Your task to perform on an android device: Add "asus rog" to the cart on target, then select checkout. Image 0: 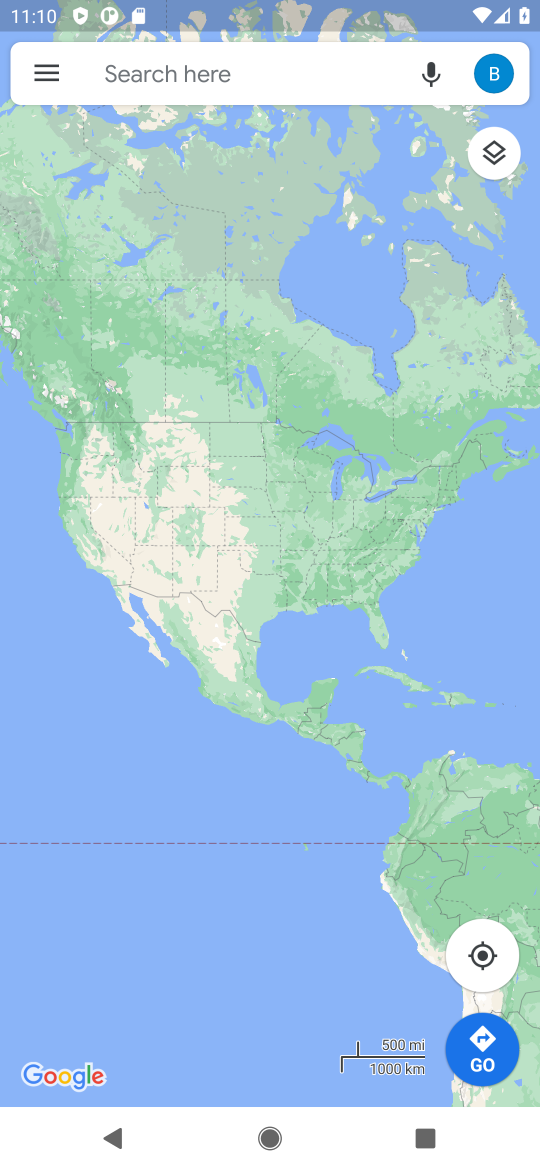
Step 0: press home button
Your task to perform on an android device: Add "asus rog" to the cart on target, then select checkout. Image 1: 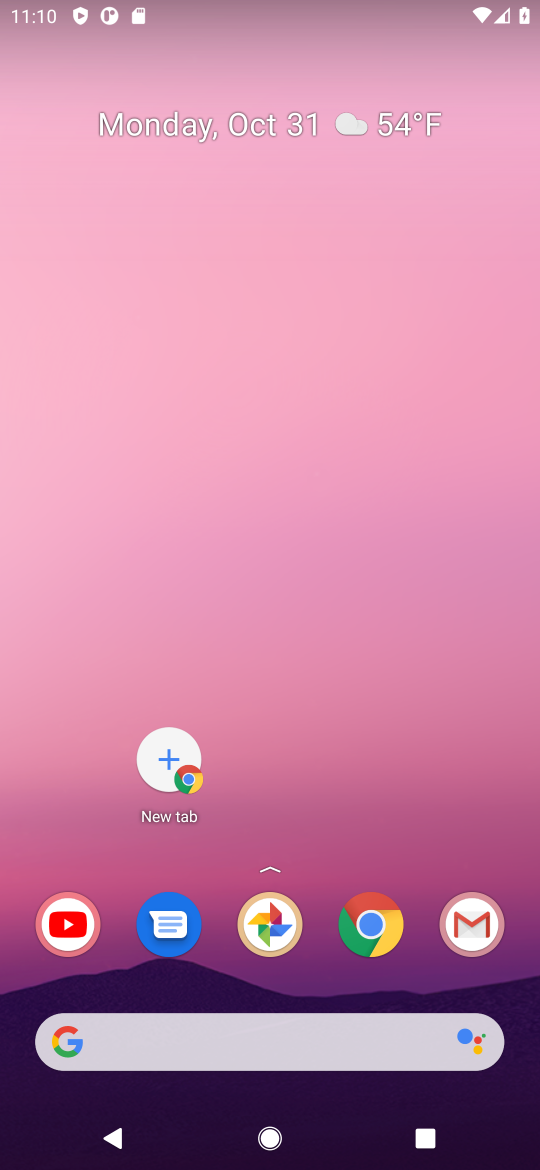
Step 1: click (165, 757)
Your task to perform on an android device: Add "asus rog" to the cart on target, then select checkout. Image 2: 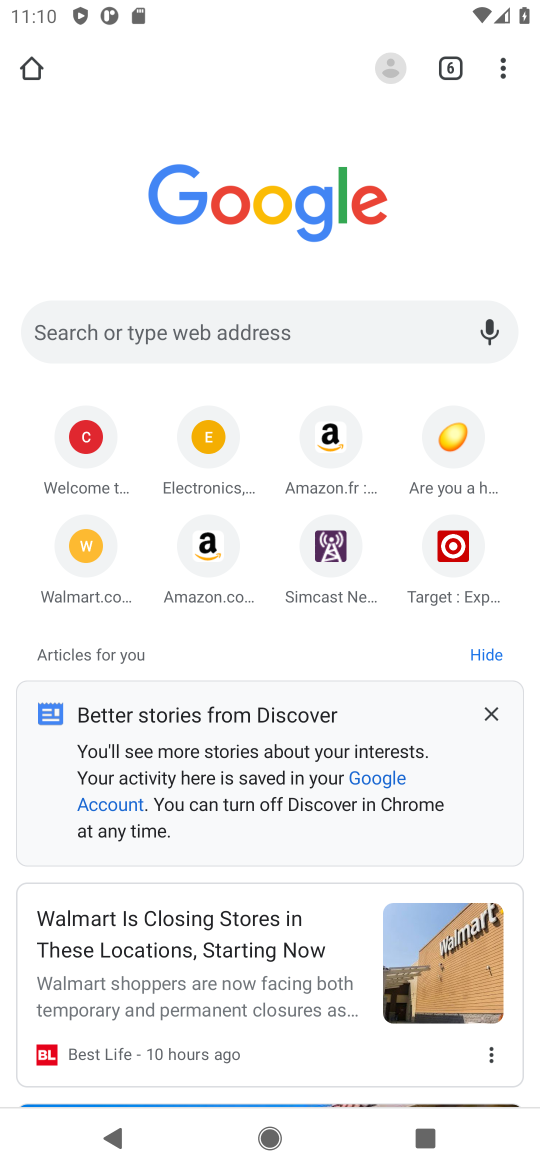
Step 2: click (241, 325)
Your task to perform on an android device: Add "asus rog" to the cart on target, then select checkout. Image 3: 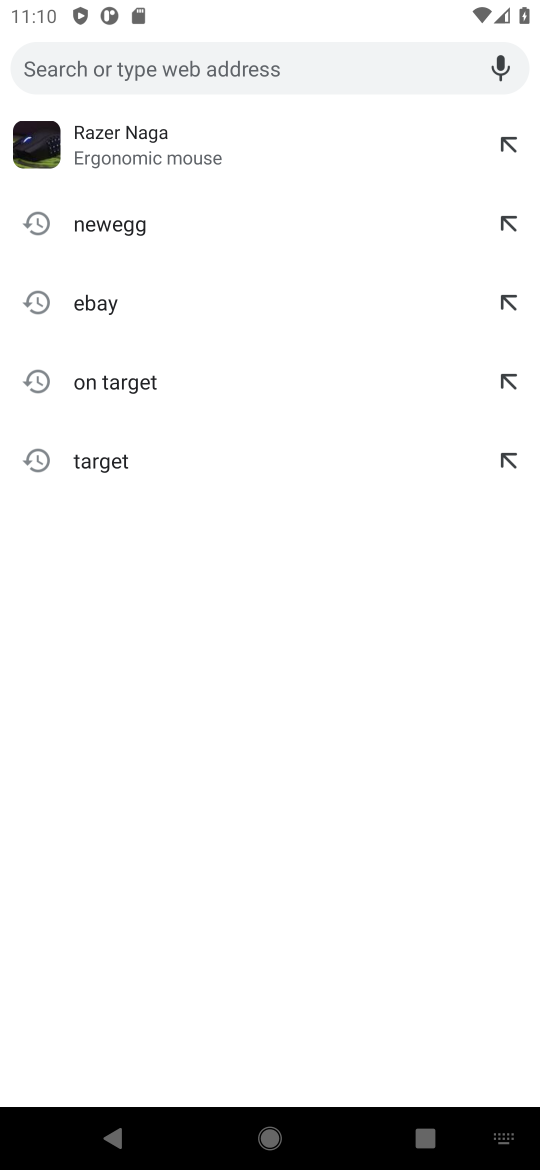
Step 3: type "target.com"
Your task to perform on an android device: Add "asus rog" to the cart on target, then select checkout. Image 4: 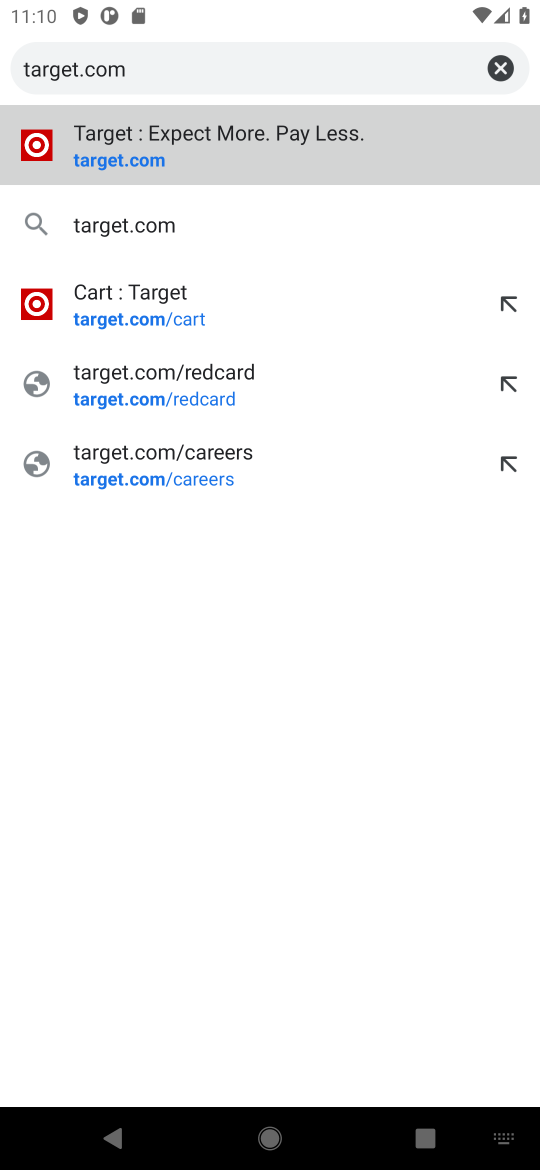
Step 4: type ""
Your task to perform on an android device: Add "asus rog" to the cart on target, then select checkout. Image 5: 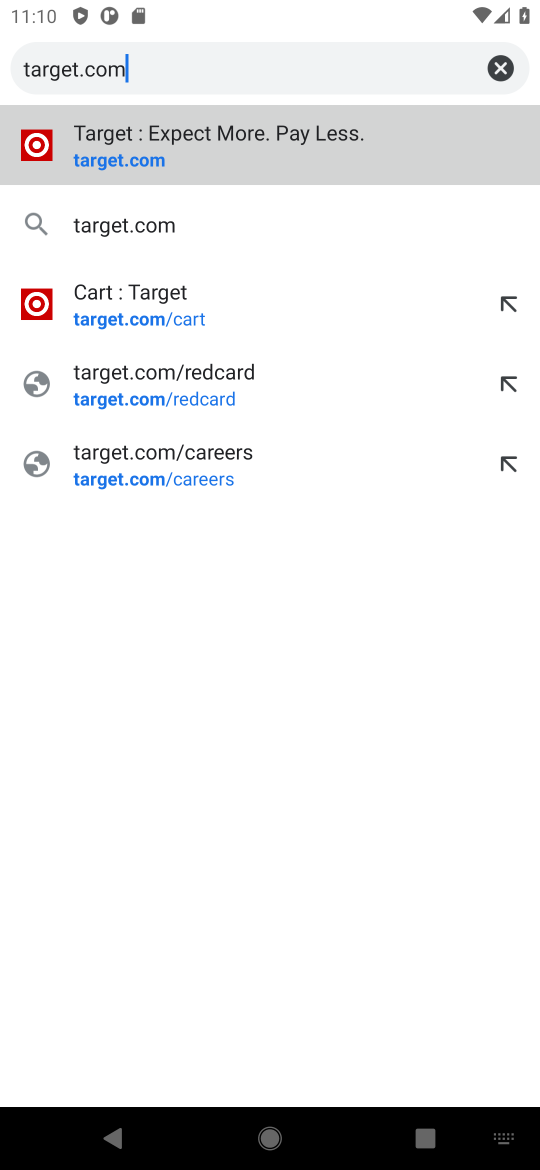
Step 5: click (174, 167)
Your task to perform on an android device: Add "asus rog" to the cart on target, then select checkout. Image 6: 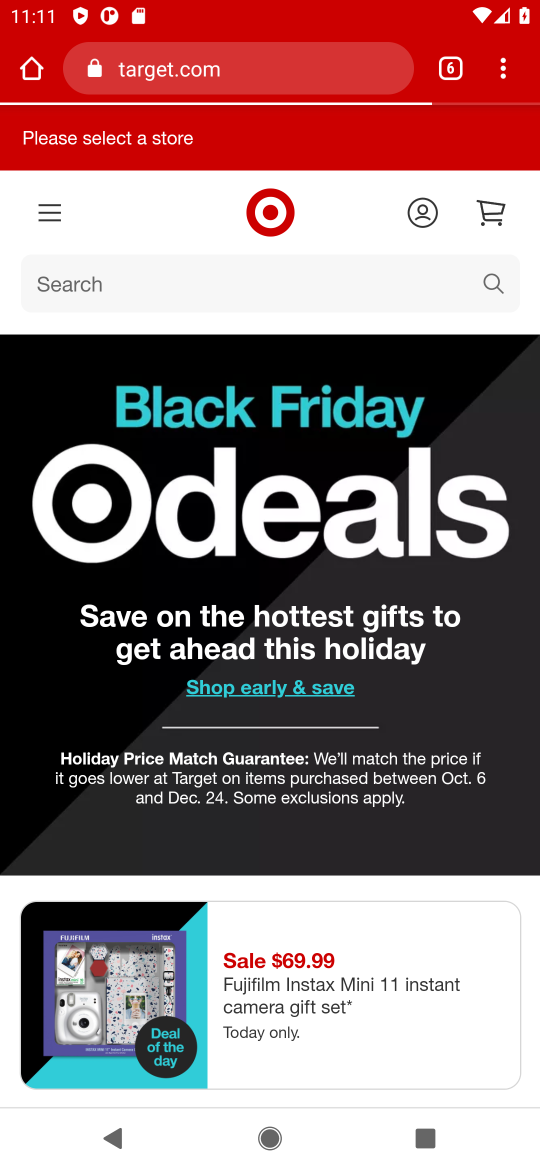
Step 6: click (107, 282)
Your task to perform on an android device: Add "asus rog" to the cart on target, then select checkout. Image 7: 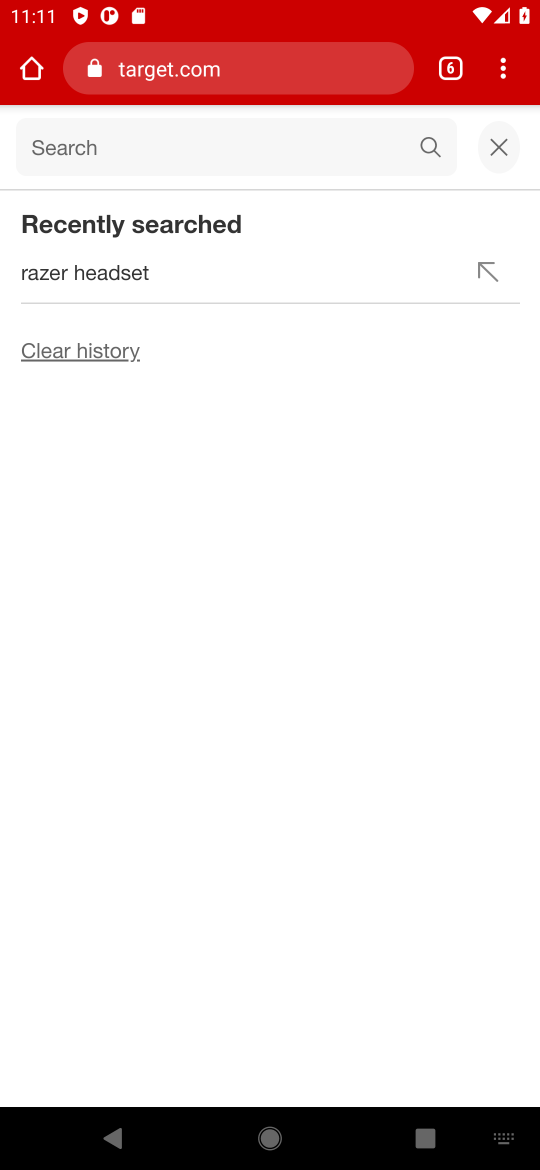
Step 7: type "asus rog"
Your task to perform on an android device: Add "asus rog" to the cart on target, then select checkout. Image 8: 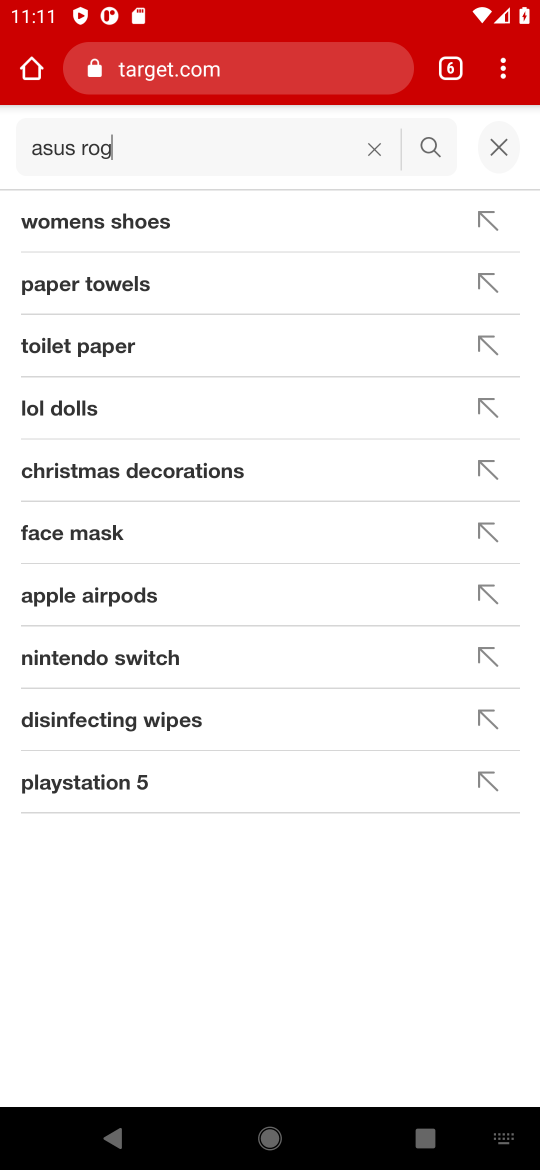
Step 8: type ""
Your task to perform on an android device: Add "asus rog" to the cart on target, then select checkout. Image 9: 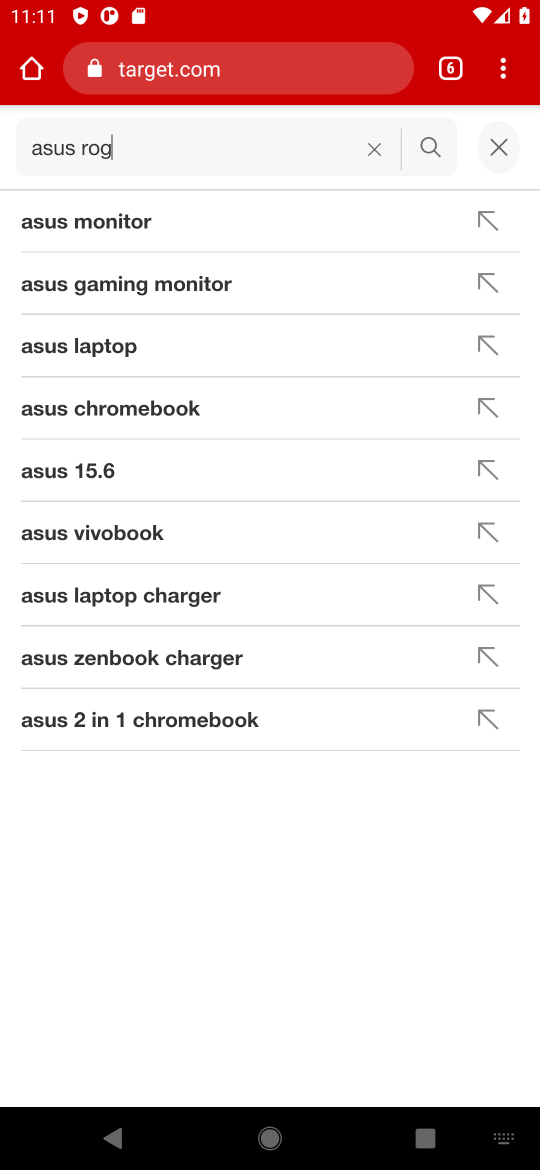
Step 9: click (163, 231)
Your task to perform on an android device: Add "asus rog" to the cart on target, then select checkout. Image 10: 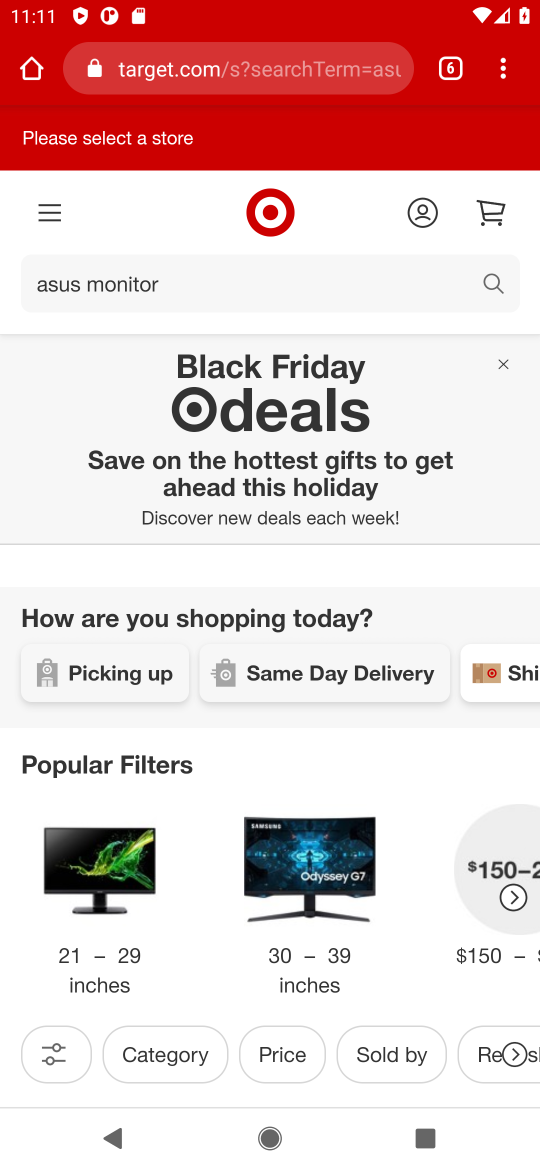
Step 10: drag from (365, 868) to (412, 518)
Your task to perform on an android device: Add "asus rog" to the cart on target, then select checkout. Image 11: 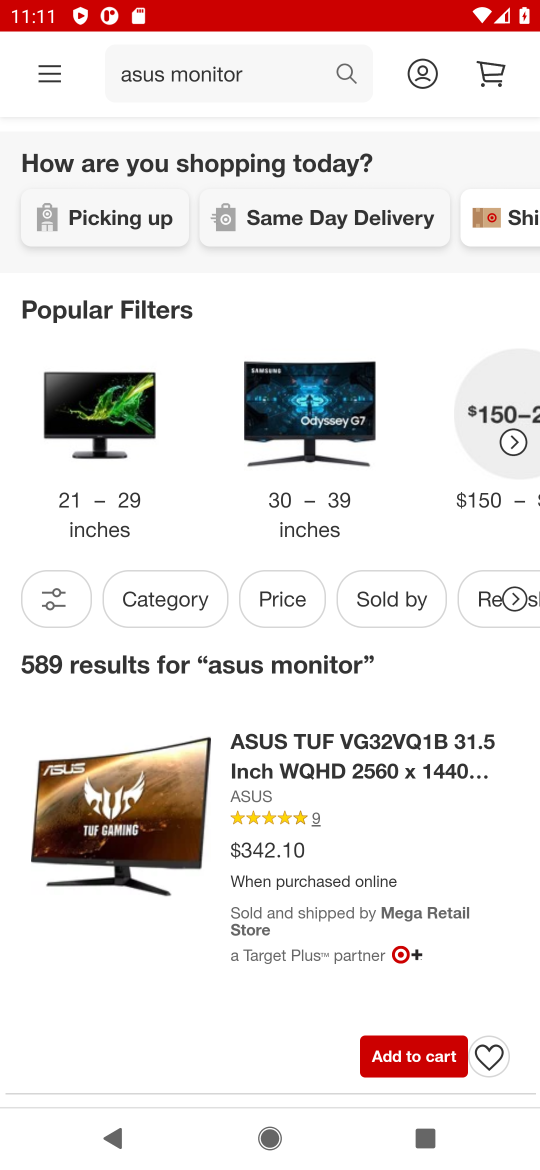
Step 11: click (355, 774)
Your task to perform on an android device: Add "asus rog" to the cart on target, then select checkout. Image 12: 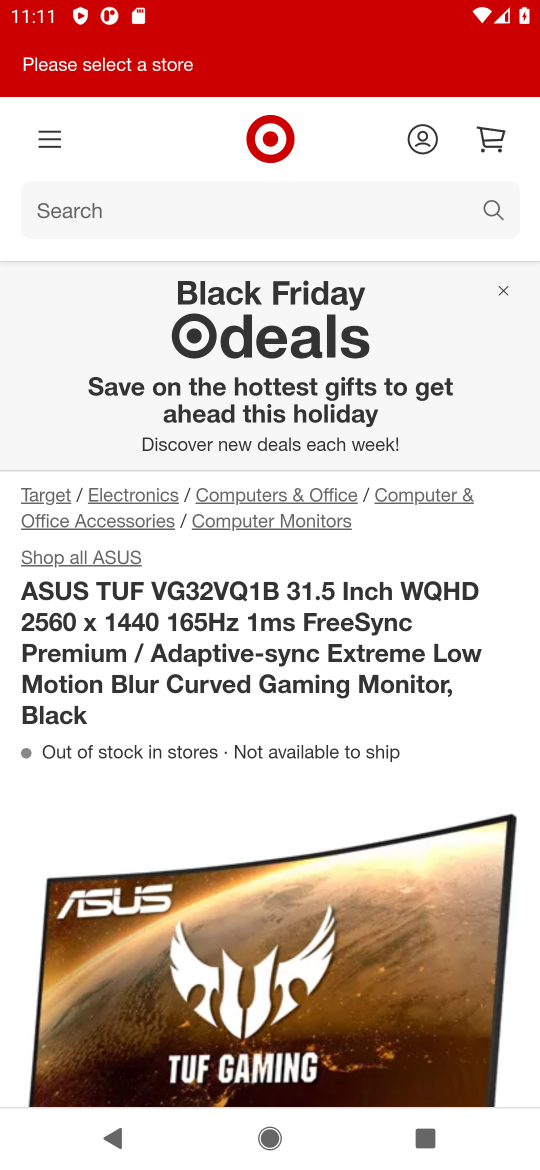
Step 12: task complete